Your task to perform on an android device: check data usage Image 0: 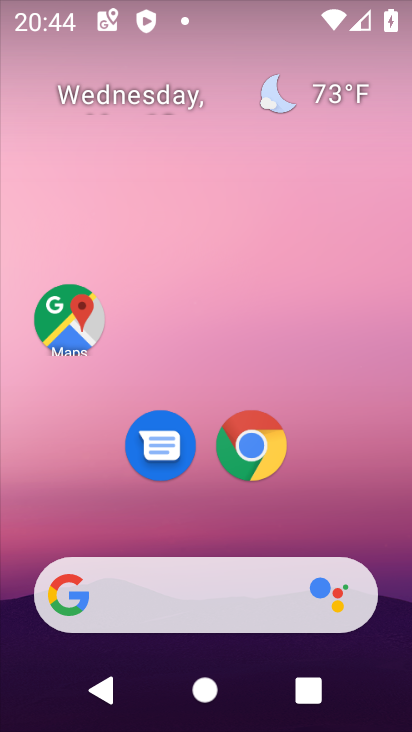
Step 0: drag from (281, 372) to (271, 155)
Your task to perform on an android device: check data usage Image 1: 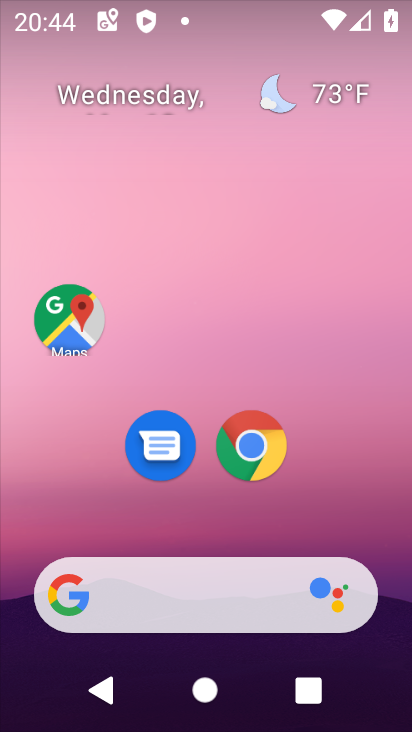
Step 1: drag from (191, 530) to (222, 192)
Your task to perform on an android device: check data usage Image 2: 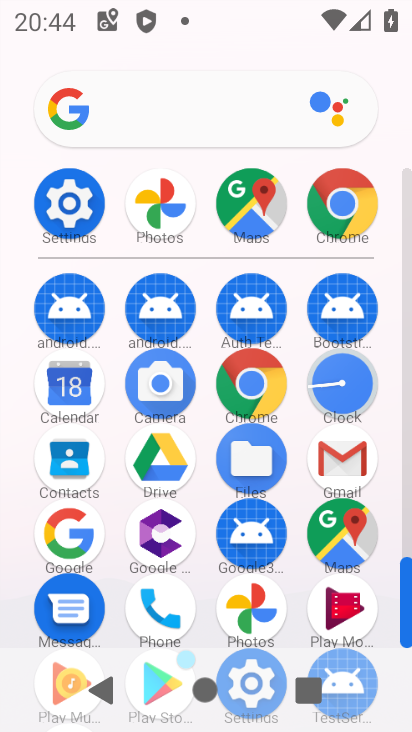
Step 2: click (74, 190)
Your task to perform on an android device: check data usage Image 3: 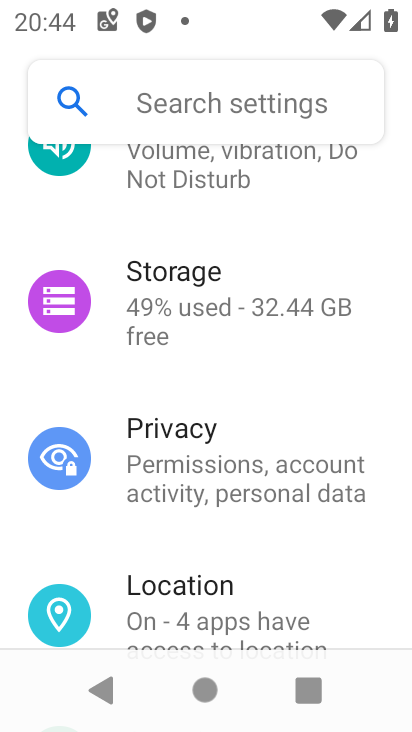
Step 3: drag from (217, 206) to (267, 600)
Your task to perform on an android device: check data usage Image 4: 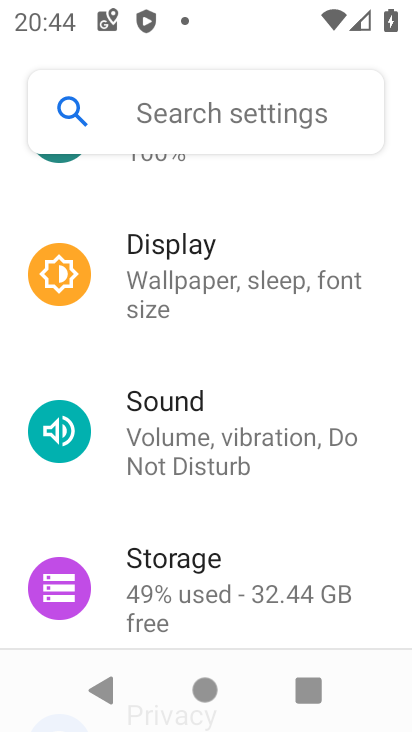
Step 4: drag from (157, 223) to (210, 599)
Your task to perform on an android device: check data usage Image 5: 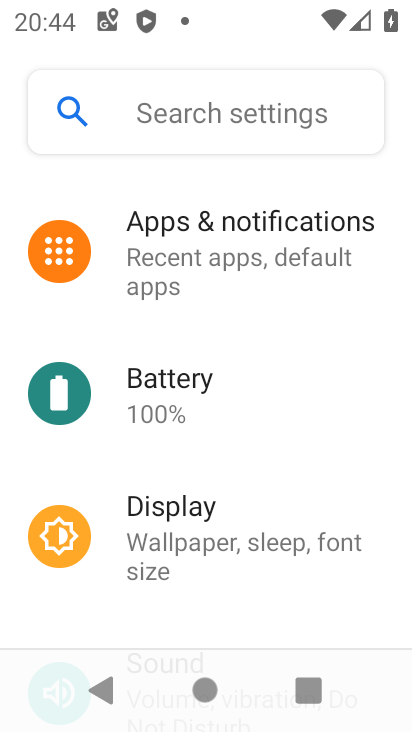
Step 5: drag from (259, 265) to (267, 553)
Your task to perform on an android device: check data usage Image 6: 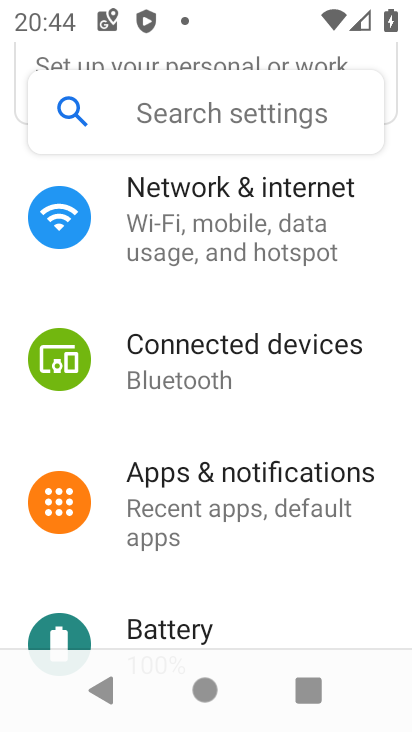
Step 6: click (242, 244)
Your task to perform on an android device: check data usage Image 7: 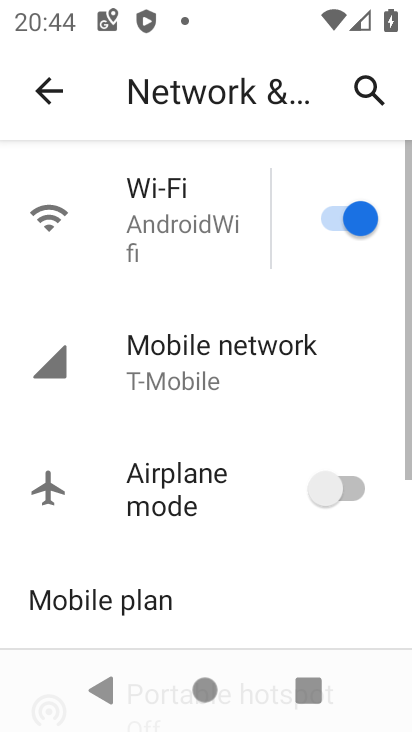
Step 7: click (193, 341)
Your task to perform on an android device: check data usage Image 8: 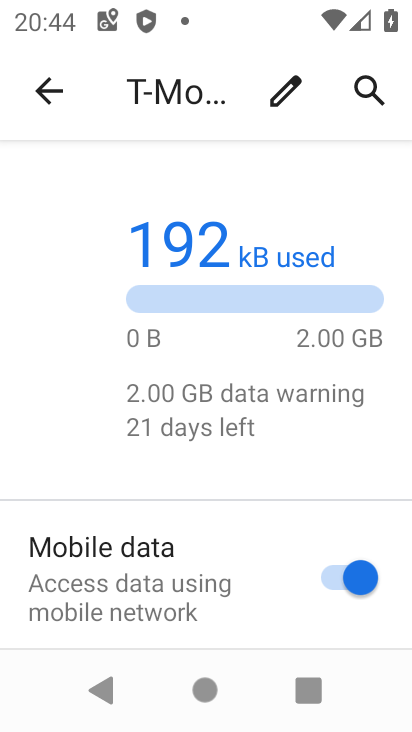
Step 8: task complete